Your task to perform on an android device: Open accessibility settings Image 0: 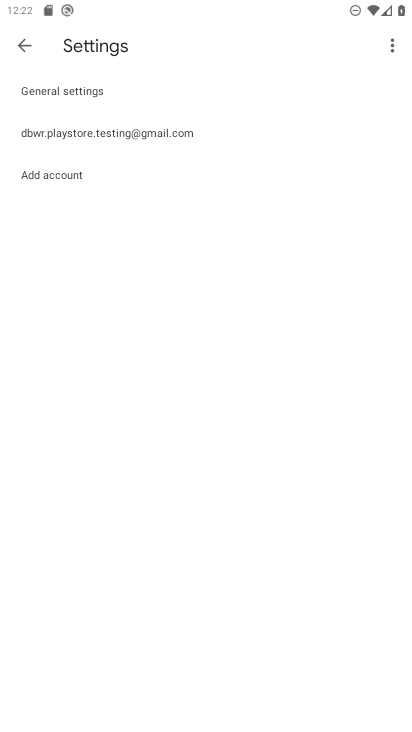
Step 0: press home button
Your task to perform on an android device: Open accessibility settings Image 1: 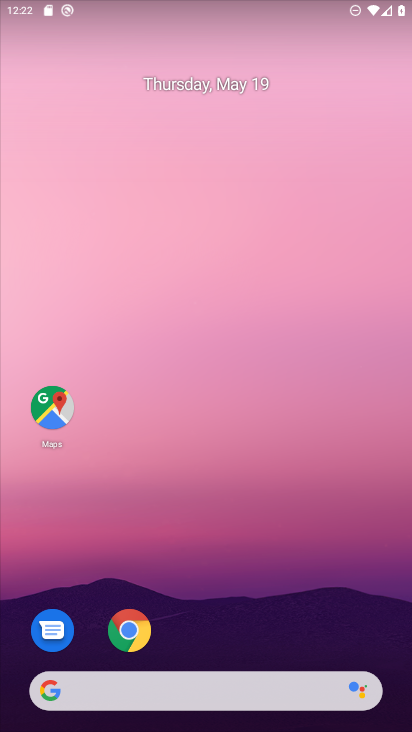
Step 1: drag from (165, 572) to (177, 225)
Your task to perform on an android device: Open accessibility settings Image 2: 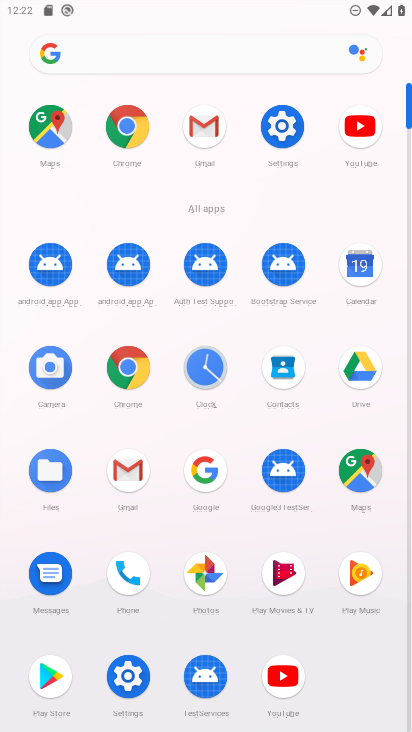
Step 2: click (285, 122)
Your task to perform on an android device: Open accessibility settings Image 3: 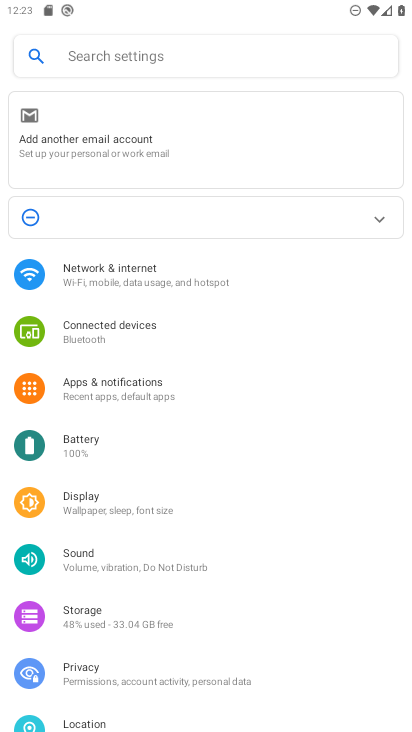
Step 3: drag from (161, 575) to (221, 194)
Your task to perform on an android device: Open accessibility settings Image 4: 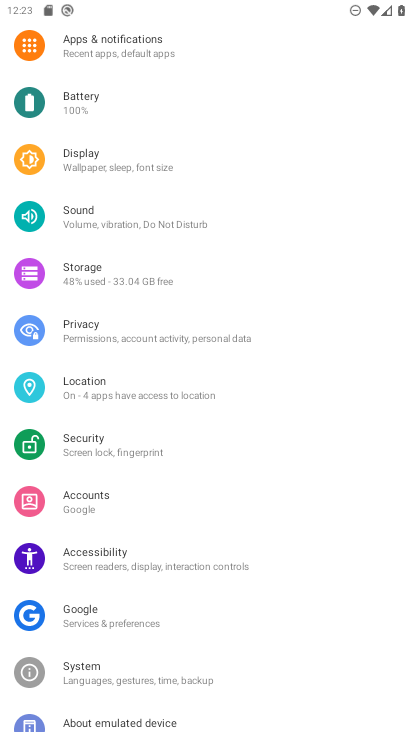
Step 4: click (155, 561)
Your task to perform on an android device: Open accessibility settings Image 5: 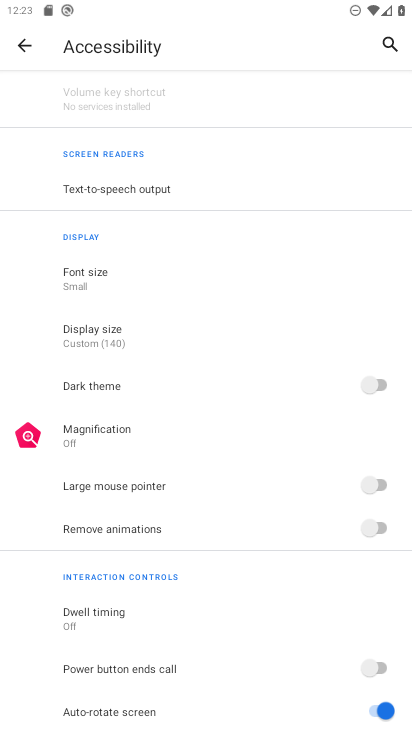
Step 5: task complete